Your task to perform on an android device: open a new tab in the chrome app Image 0: 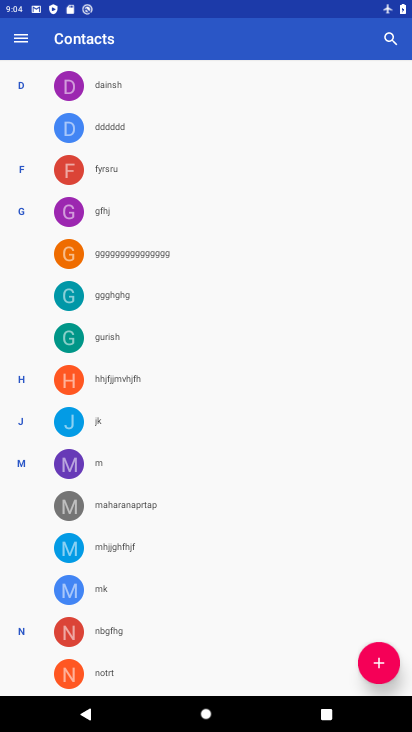
Step 0: press home button
Your task to perform on an android device: open a new tab in the chrome app Image 1: 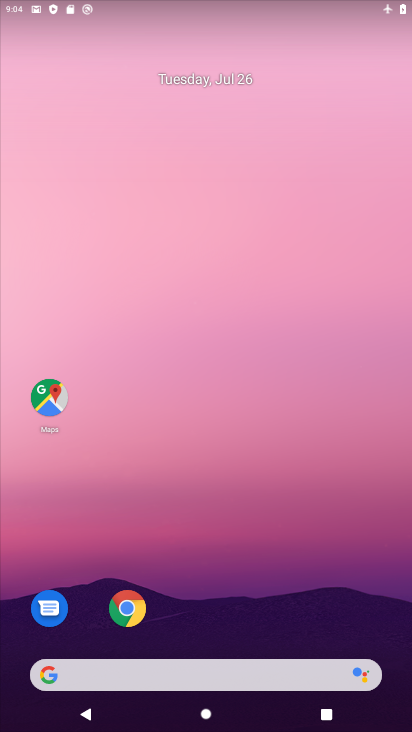
Step 1: click (129, 603)
Your task to perform on an android device: open a new tab in the chrome app Image 2: 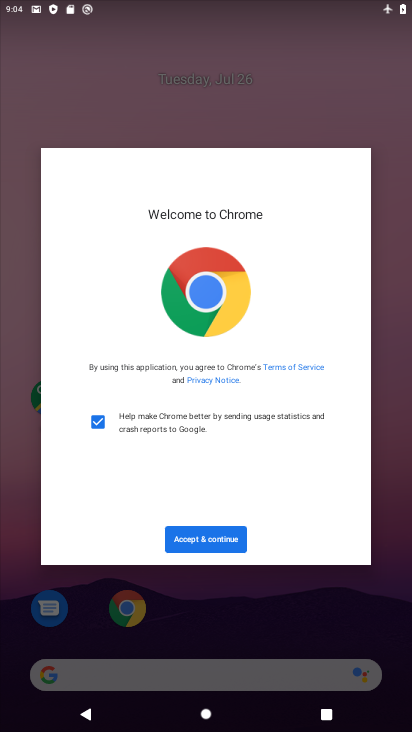
Step 2: click (226, 535)
Your task to perform on an android device: open a new tab in the chrome app Image 3: 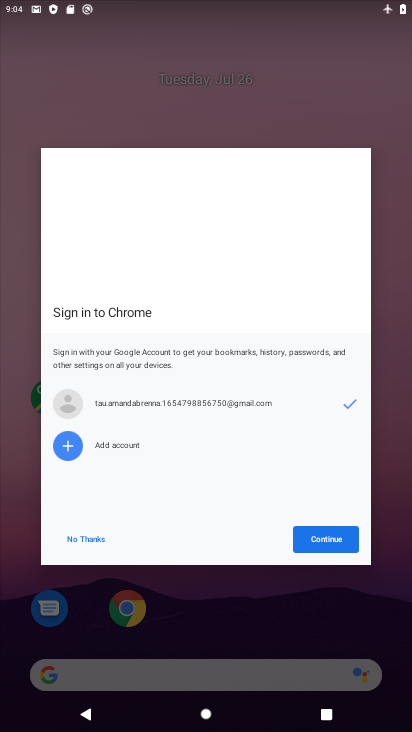
Step 3: click (309, 539)
Your task to perform on an android device: open a new tab in the chrome app Image 4: 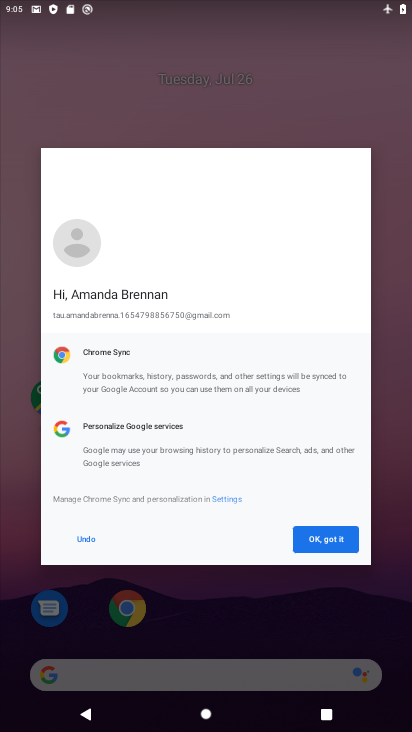
Step 4: click (309, 539)
Your task to perform on an android device: open a new tab in the chrome app Image 5: 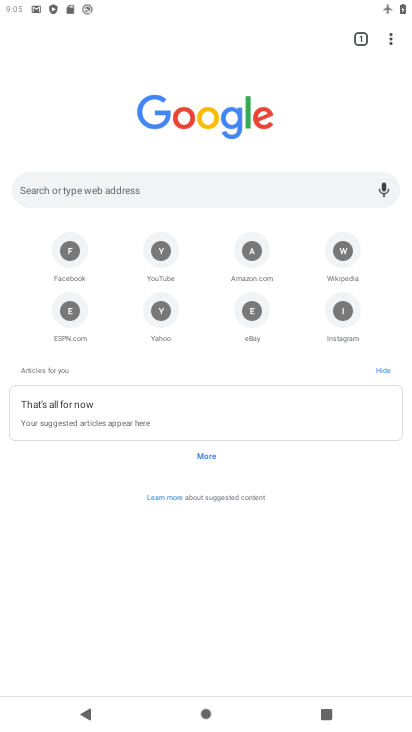
Step 5: task complete